Your task to perform on an android device: open app "Microsoft Authenticator" (install if not already installed) Image 0: 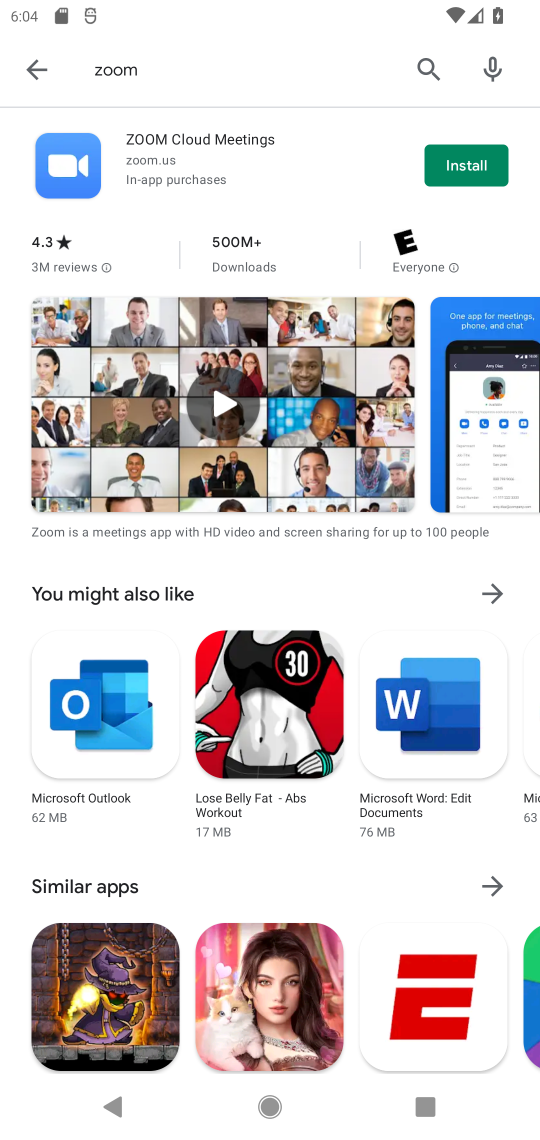
Step 0: press home button
Your task to perform on an android device: open app "Microsoft Authenticator" (install if not already installed) Image 1: 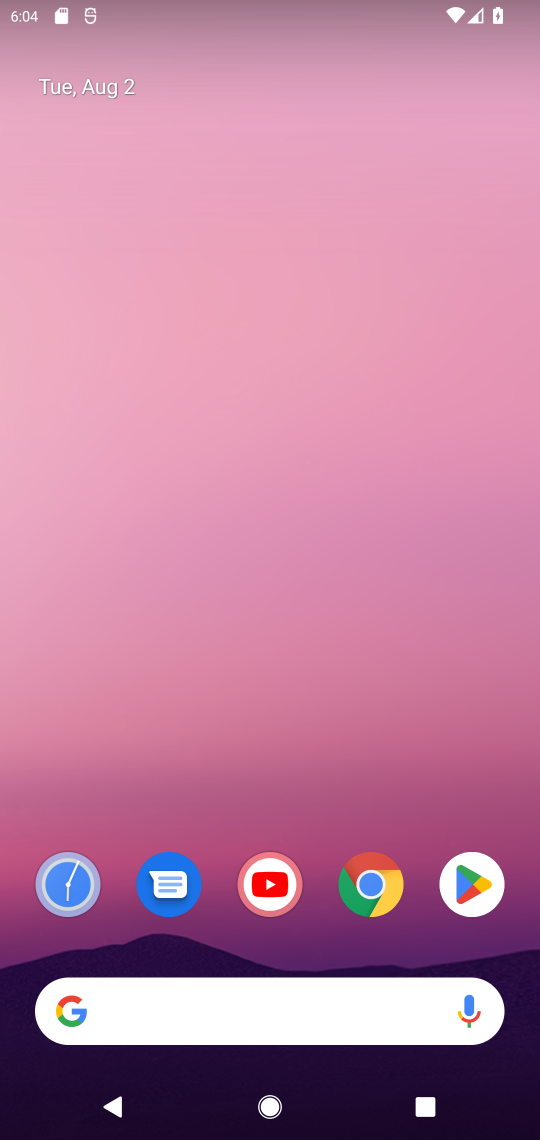
Step 1: click (462, 878)
Your task to perform on an android device: open app "Microsoft Authenticator" (install if not already installed) Image 2: 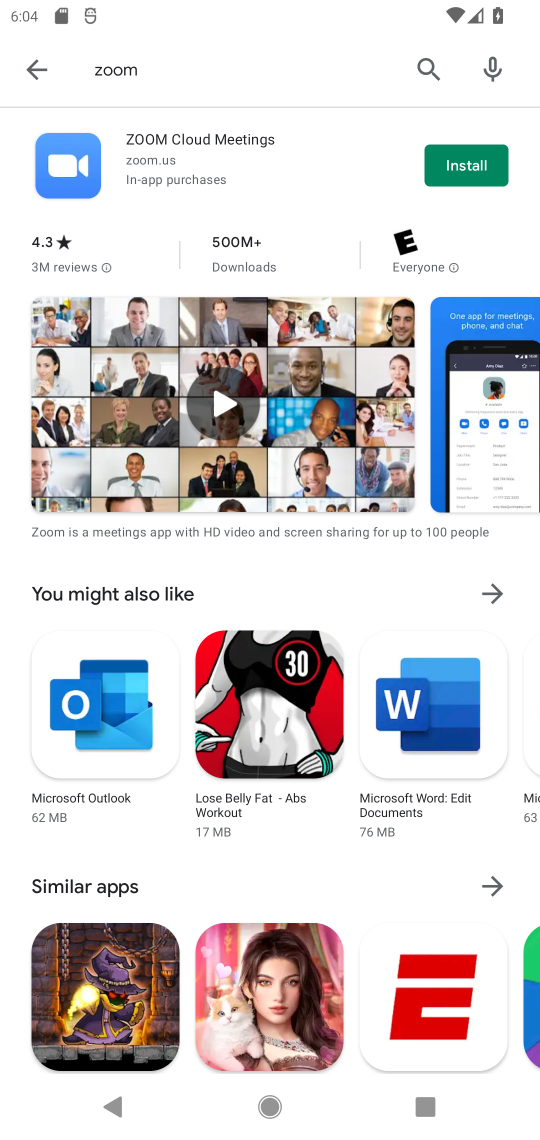
Step 2: click (421, 68)
Your task to perform on an android device: open app "Microsoft Authenticator" (install if not already installed) Image 3: 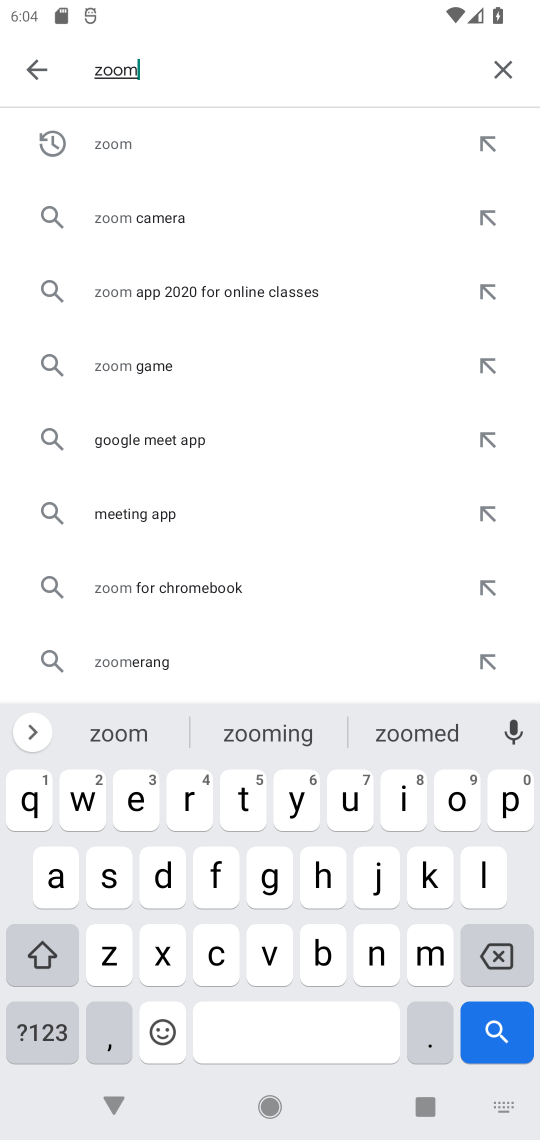
Step 3: click (498, 65)
Your task to perform on an android device: open app "Microsoft Authenticator" (install if not already installed) Image 4: 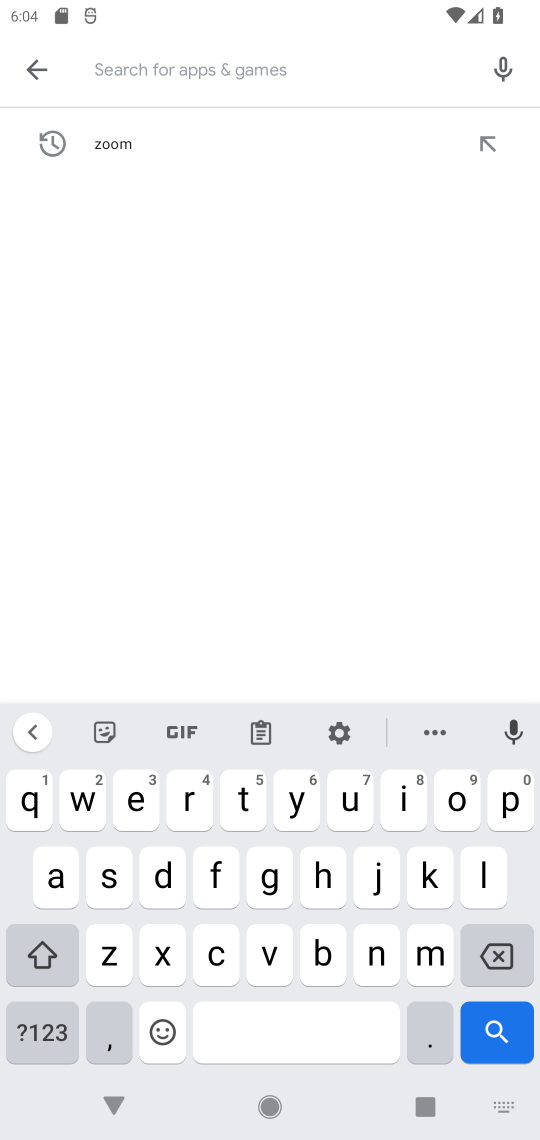
Step 4: click (46, 873)
Your task to perform on an android device: open app "Microsoft Authenticator" (install if not already installed) Image 5: 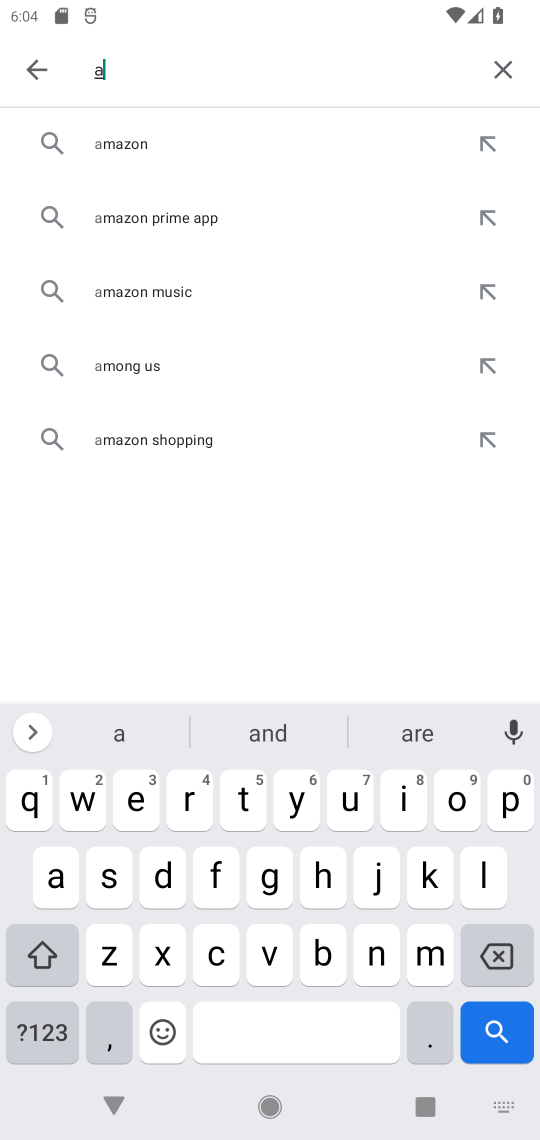
Step 5: click (352, 803)
Your task to perform on an android device: open app "Microsoft Authenticator" (install if not already installed) Image 6: 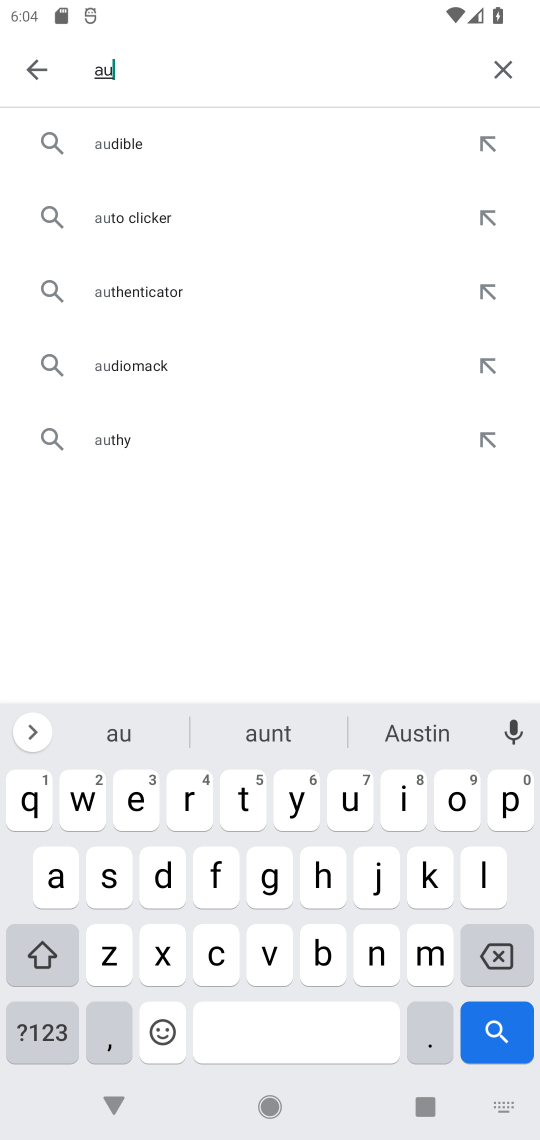
Step 6: click (232, 798)
Your task to perform on an android device: open app "Microsoft Authenticator" (install if not already installed) Image 7: 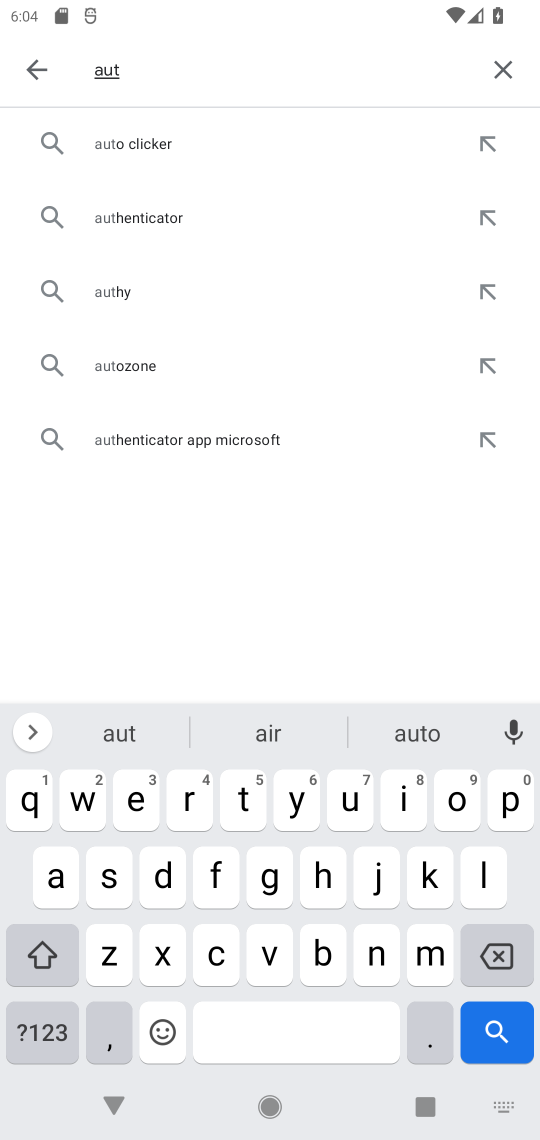
Step 7: click (145, 217)
Your task to perform on an android device: open app "Microsoft Authenticator" (install if not already installed) Image 8: 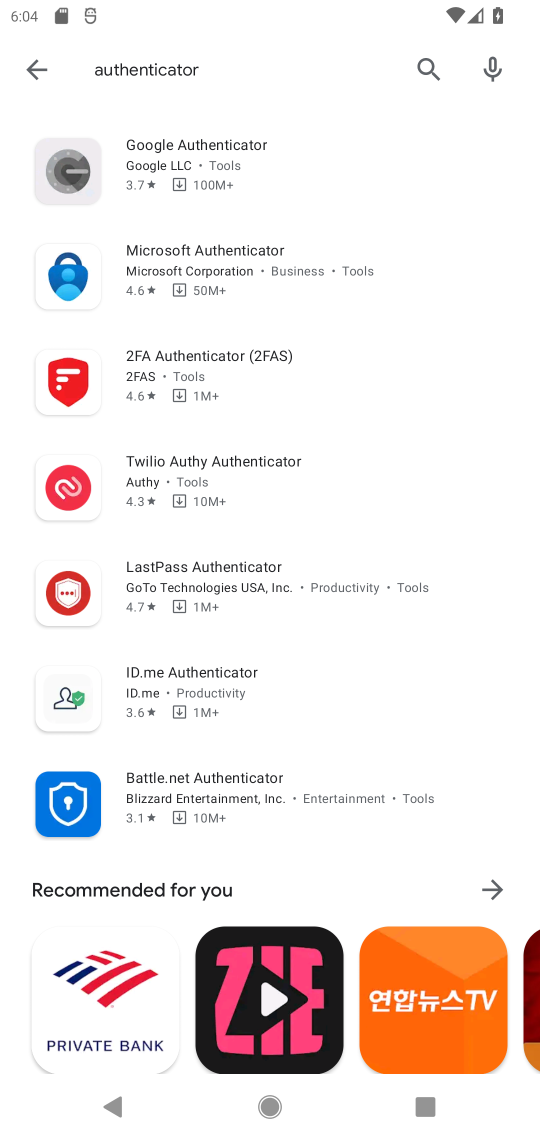
Step 8: click (178, 283)
Your task to perform on an android device: open app "Microsoft Authenticator" (install if not already installed) Image 9: 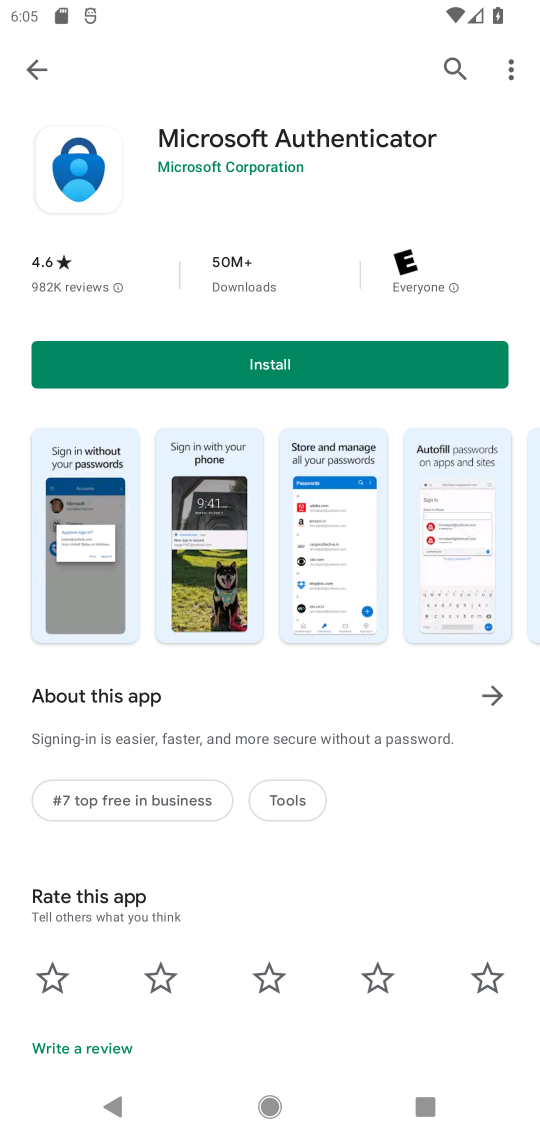
Step 9: click (223, 367)
Your task to perform on an android device: open app "Microsoft Authenticator" (install if not already installed) Image 10: 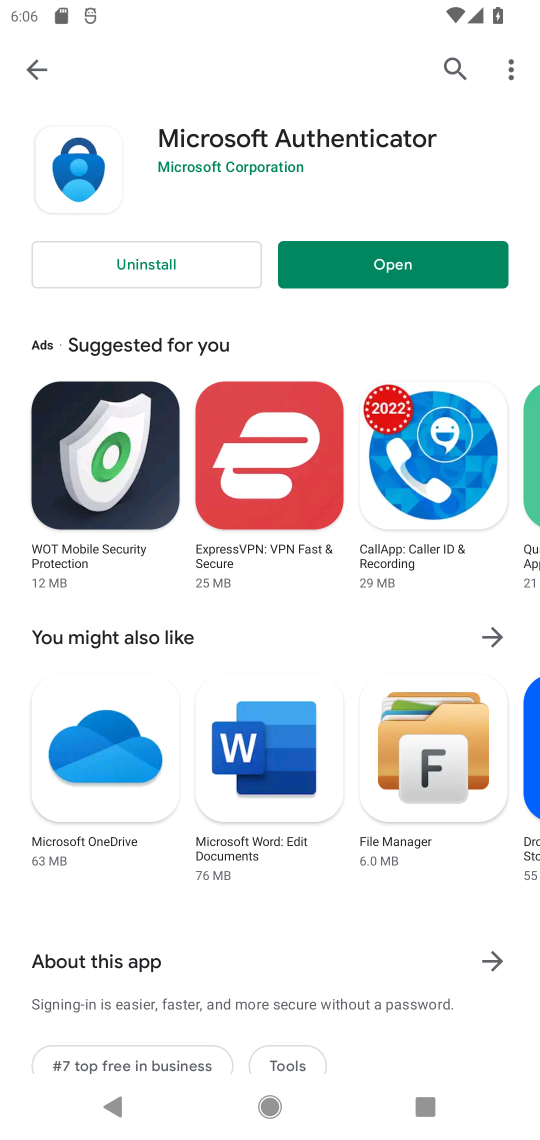
Step 10: click (348, 267)
Your task to perform on an android device: open app "Microsoft Authenticator" (install if not already installed) Image 11: 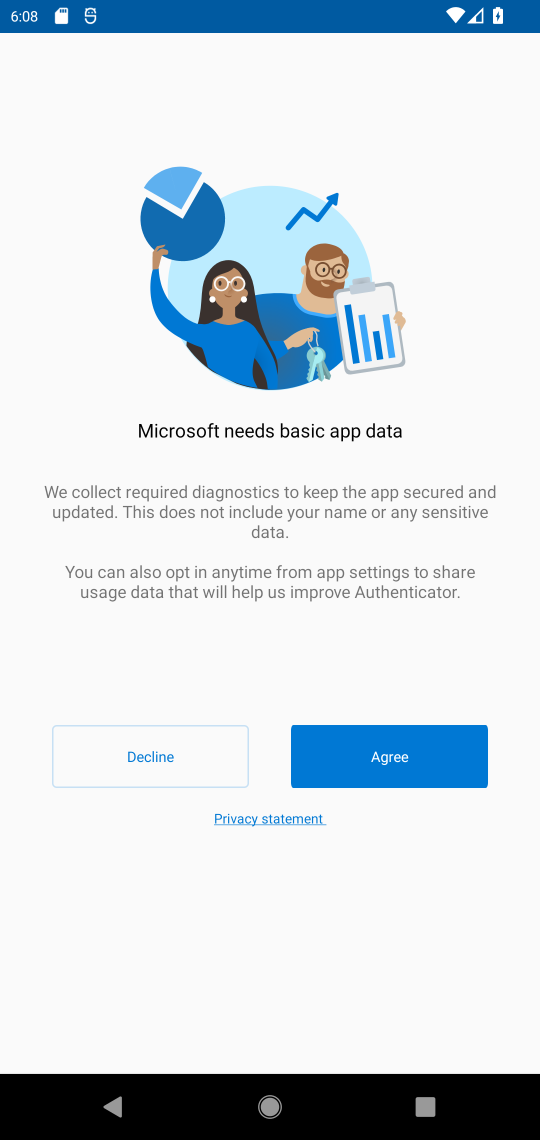
Step 11: task complete